Your task to perform on an android device: What's the weather going to be this weekend? Image 0: 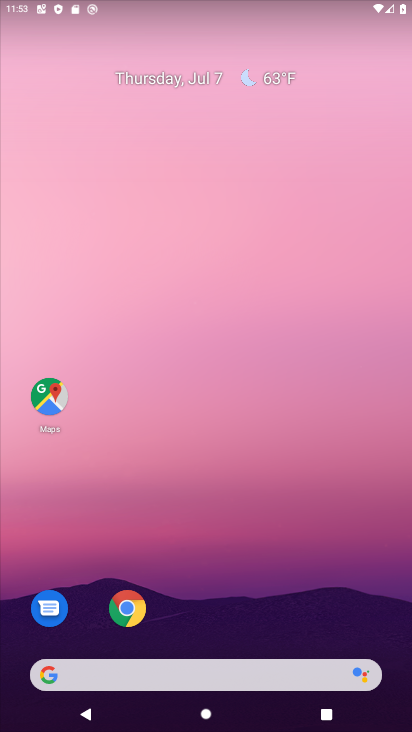
Step 0: click (259, 679)
Your task to perform on an android device: What's the weather going to be this weekend? Image 1: 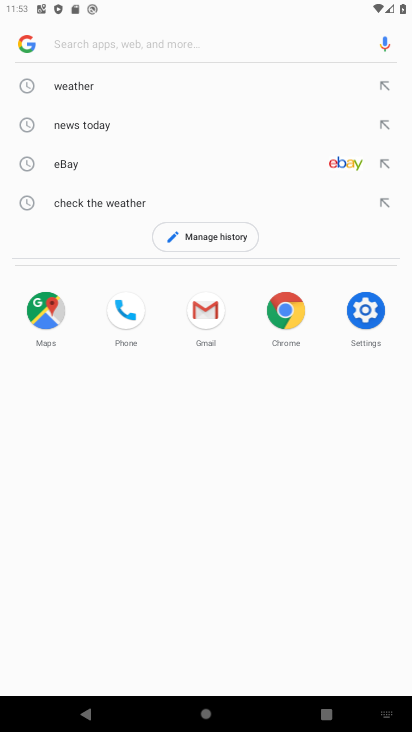
Step 1: click (133, 80)
Your task to perform on an android device: What's the weather going to be this weekend? Image 2: 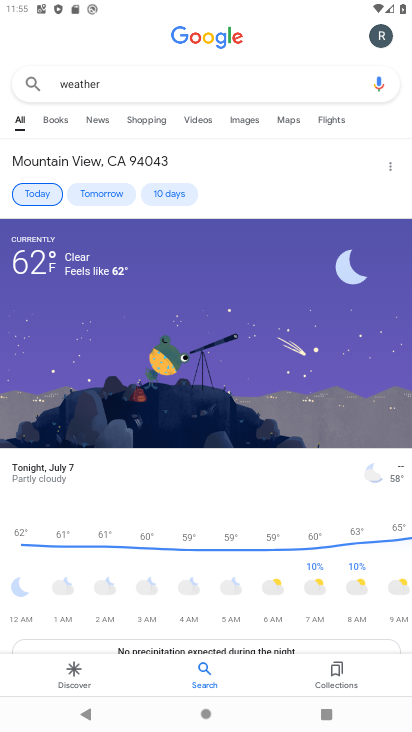
Step 2: task complete